Your task to perform on an android device: Open the calendar app, open the side menu, and click the "Day" option Image 0: 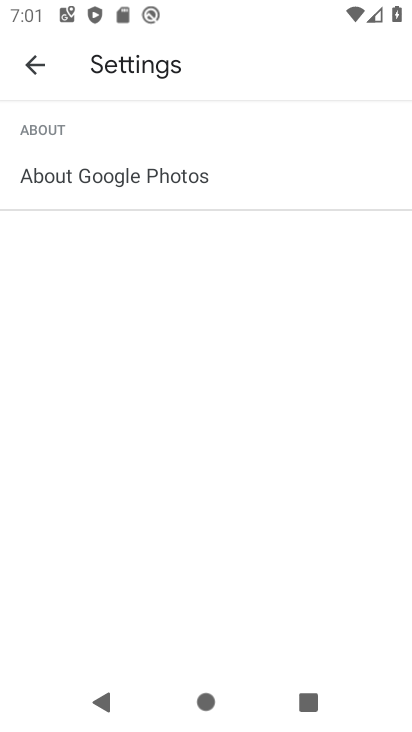
Step 0: press home button
Your task to perform on an android device: Open the calendar app, open the side menu, and click the "Day" option Image 1: 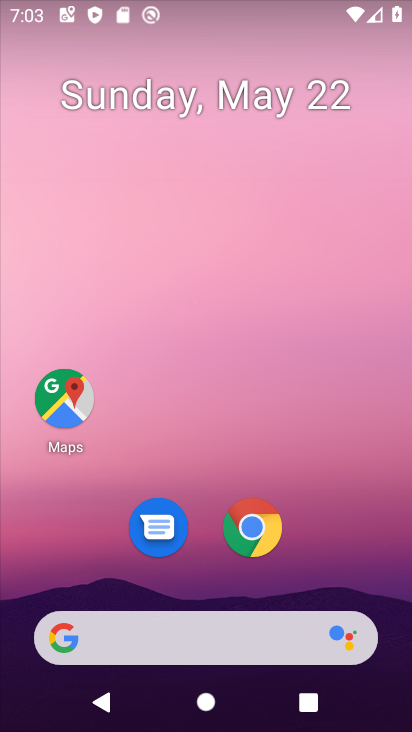
Step 1: drag from (348, 491) to (206, 54)
Your task to perform on an android device: Open the calendar app, open the side menu, and click the "Day" option Image 2: 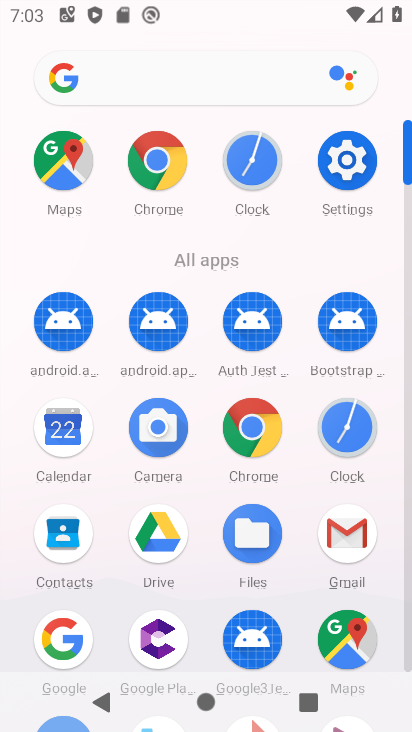
Step 2: click (60, 439)
Your task to perform on an android device: Open the calendar app, open the side menu, and click the "Day" option Image 3: 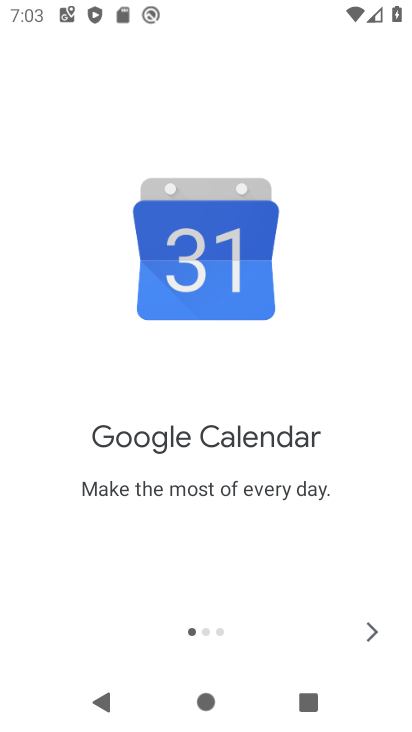
Step 3: click (363, 642)
Your task to perform on an android device: Open the calendar app, open the side menu, and click the "Day" option Image 4: 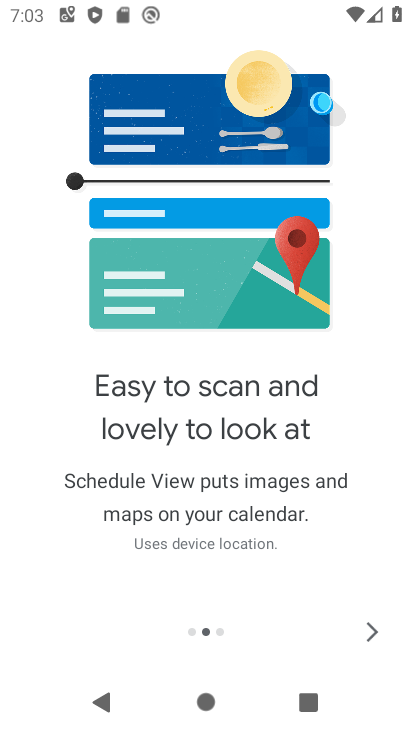
Step 4: click (363, 641)
Your task to perform on an android device: Open the calendar app, open the side menu, and click the "Day" option Image 5: 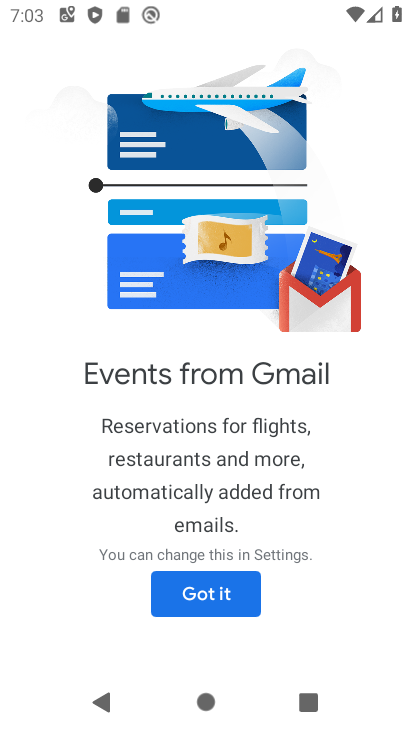
Step 5: click (234, 598)
Your task to perform on an android device: Open the calendar app, open the side menu, and click the "Day" option Image 6: 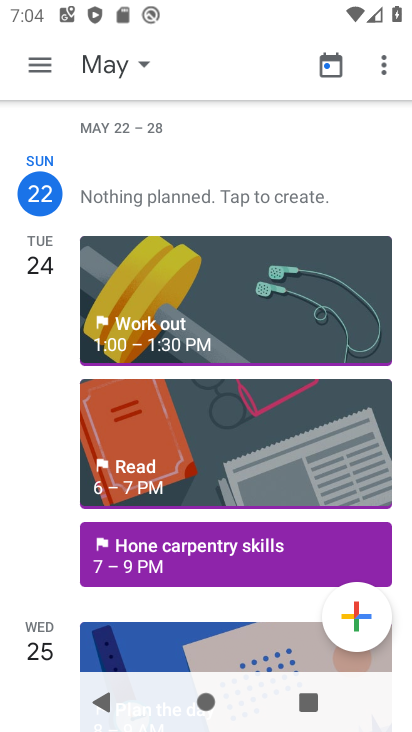
Step 6: click (31, 61)
Your task to perform on an android device: Open the calendar app, open the side menu, and click the "Day" option Image 7: 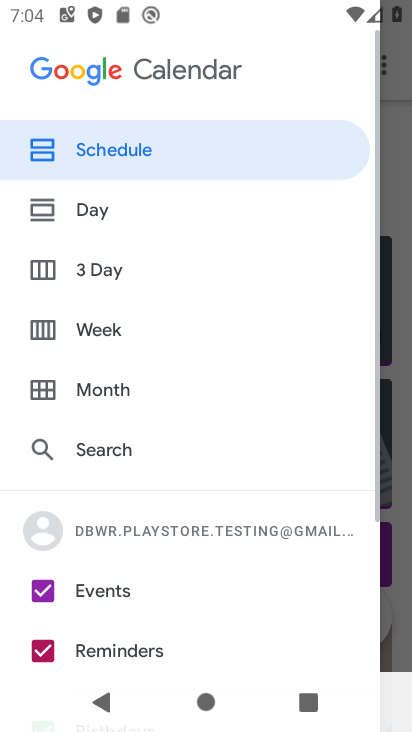
Step 7: click (110, 214)
Your task to perform on an android device: Open the calendar app, open the side menu, and click the "Day" option Image 8: 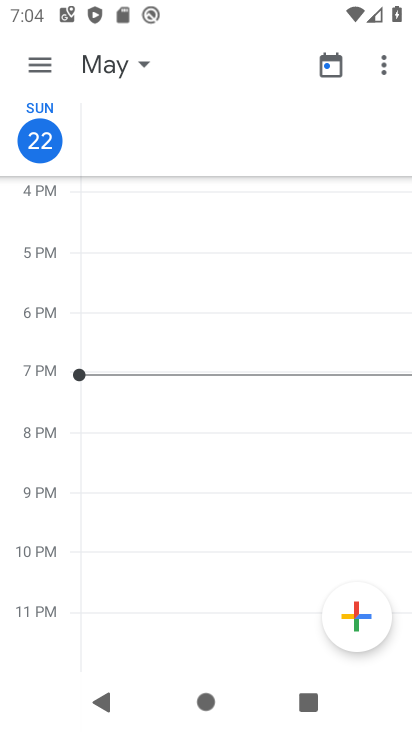
Step 8: task complete